Your task to perform on an android device: open sync settings in chrome Image 0: 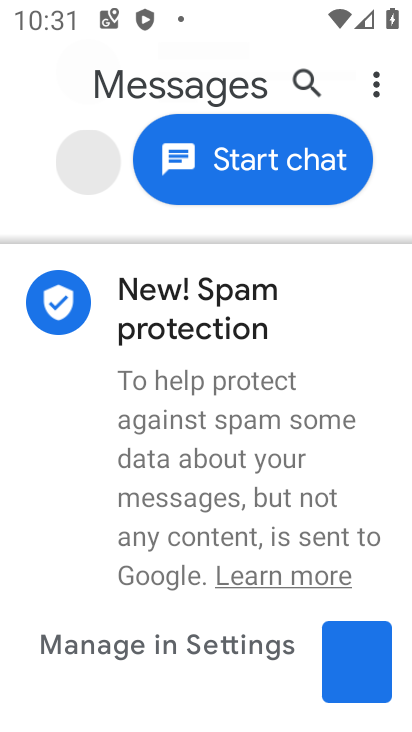
Step 0: press home button
Your task to perform on an android device: open sync settings in chrome Image 1: 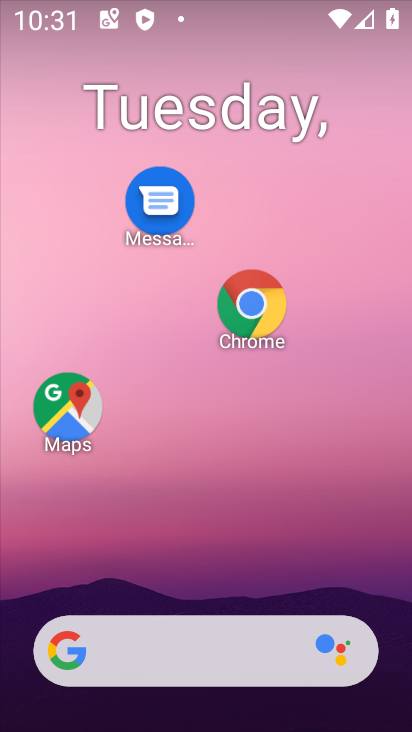
Step 1: drag from (204, 595) to (238, 292)
Your task to perform on an android device: open sync settings in chrome Image 2: 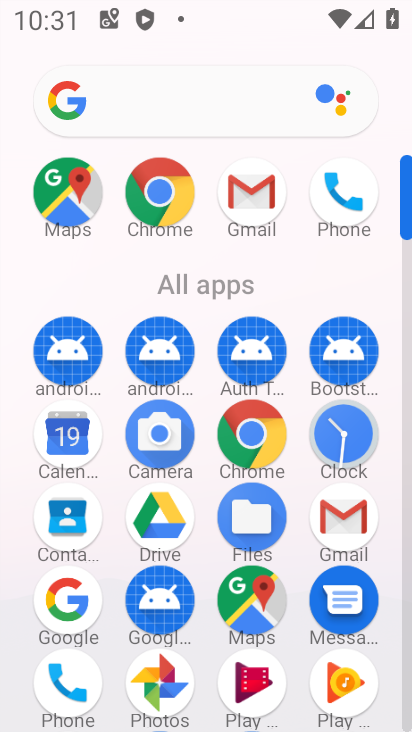
Step 2: click (249, 432)
Your task to perform on an android device: open sync settings in chrome Image 3: 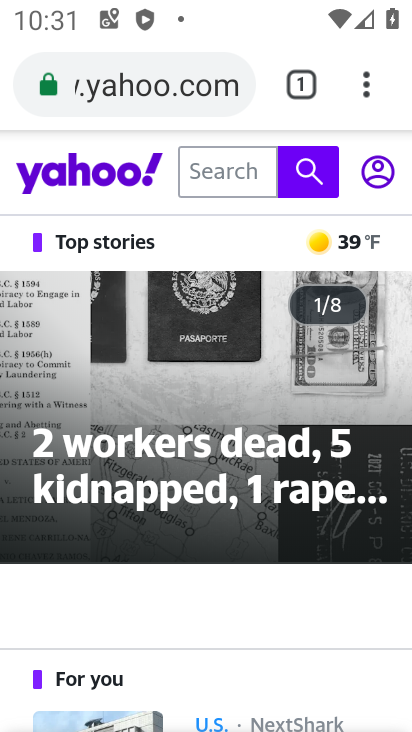
Step 3: click (368, 83)
Your task to perform on an android device: open sync settings in chrome Image 4: 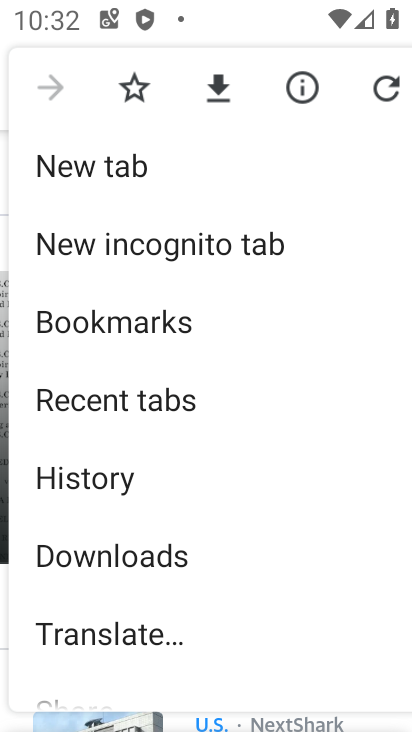
Step 4: drag from (220, 629) to (300, 262)
Your task to perform on an android device: open sync settings in chrome Image 5: 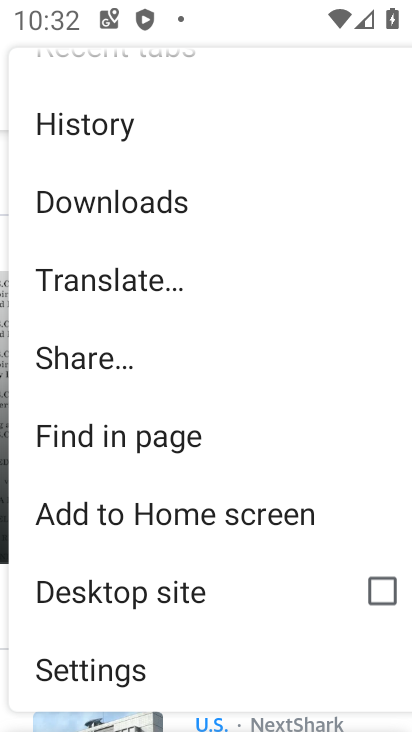
Step 5: click (150, 678)
Your task to perform on an android device: open sync settings in chrome Image 6: 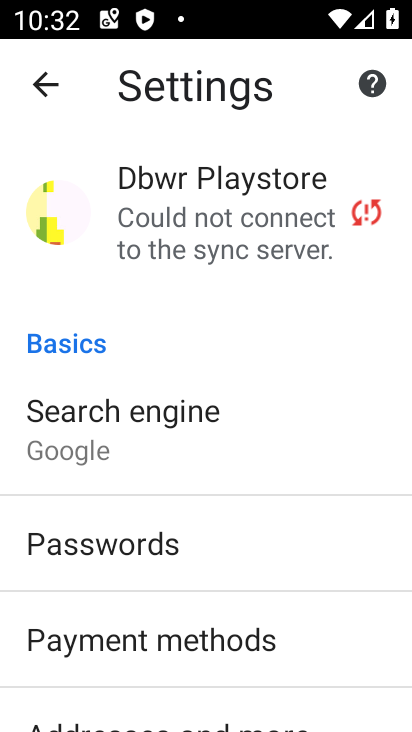
Step 6: click (250, 236)
Your task to perform on an android device: open sync settings in chrome Image 7: 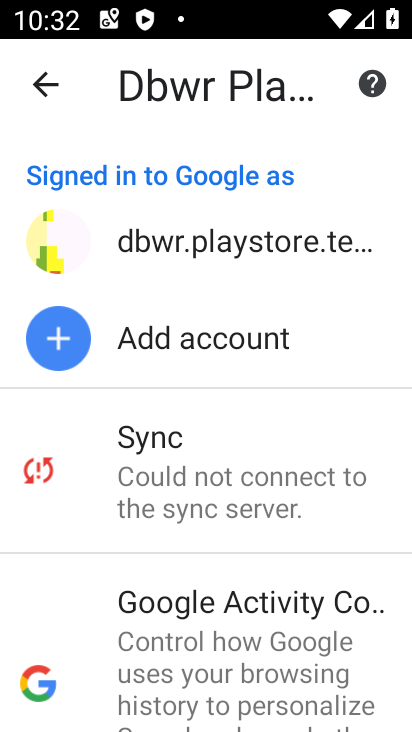
Step 7: click (240, 475)
Your task to perform on an android device: open sync settings in chrome Image 8: 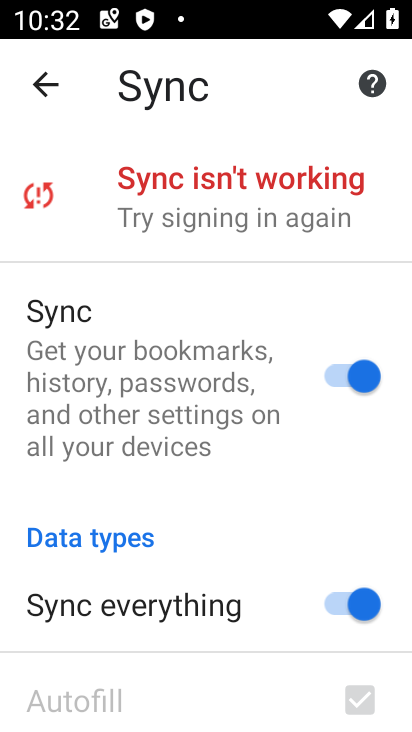
Step 8: task complete